Your task to perform on an android device: Open internet settings Image 0: 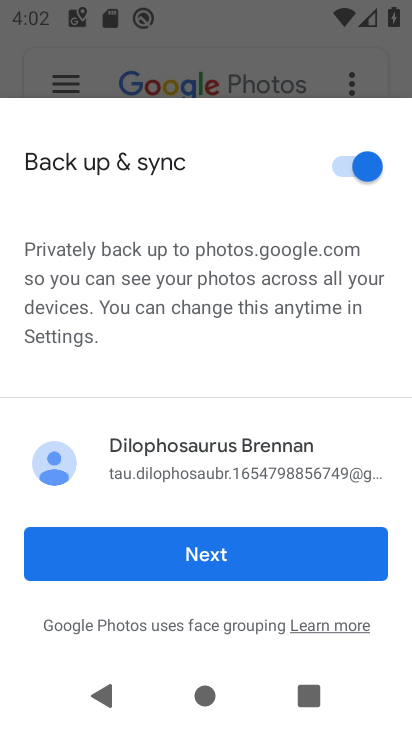
Step 0: press back button
Your task to perform on an android device: Open internet settings Image 1: 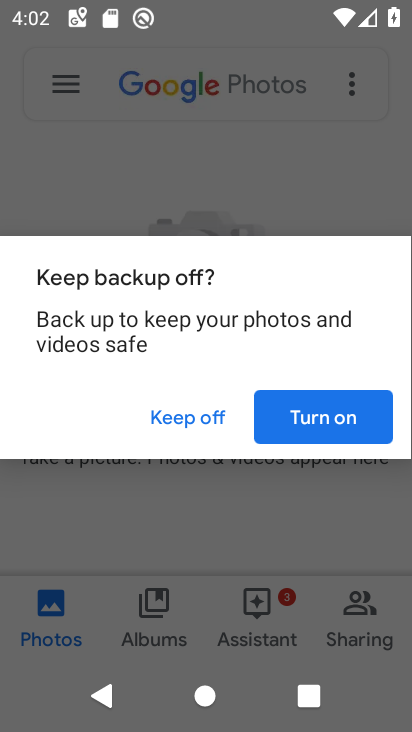
Step 1: click (184, 430)
Your task to perform on an android device: Open internet settings Image 2: 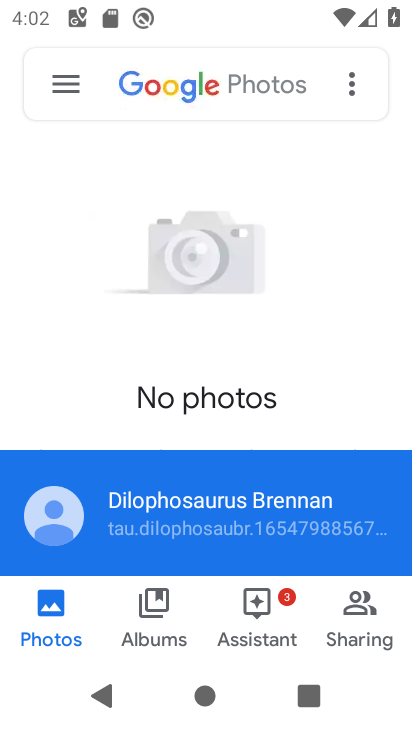
Step 2: press back button
Your task to perform on an android device: Open internet settings Image 3: 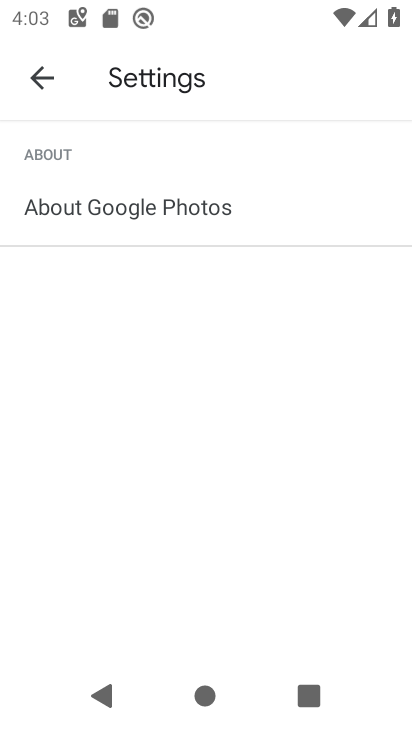
Step 3: press back button
Your task to perform on an android device: Open internet settings Image 4: 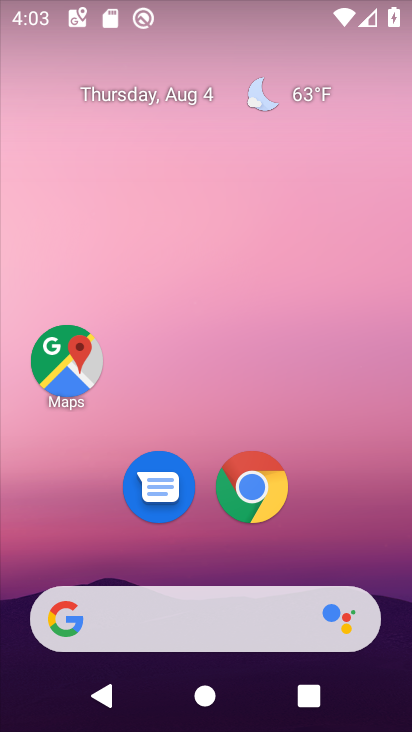
Step 4: drag from (94, 441) to (178, 60)
Your task to perform on an android device: Open internet settings Image 5: 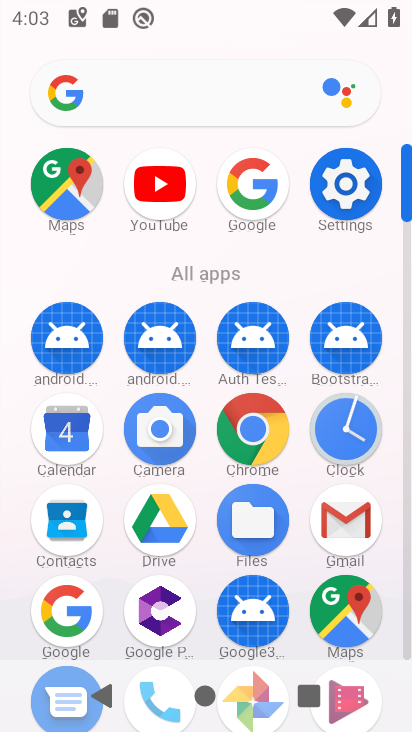
Step 5: click (356, 163)
Your task to perform on an android device: Open internet settings Image 6: 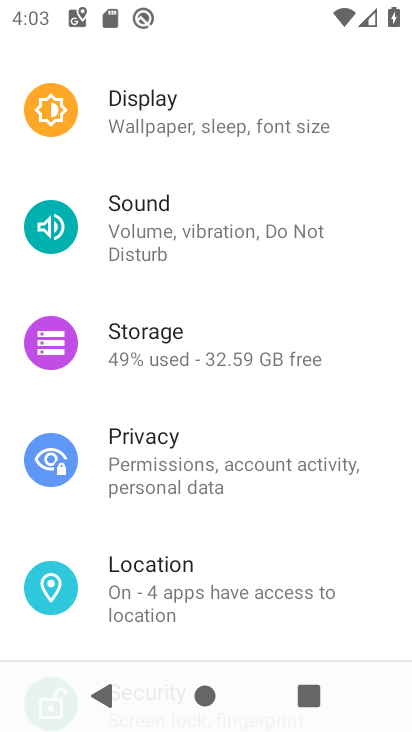
Step 6: drag from (253, 350) to (243, 713)
Your task to perform on an android device: Open internet settings Image 7: 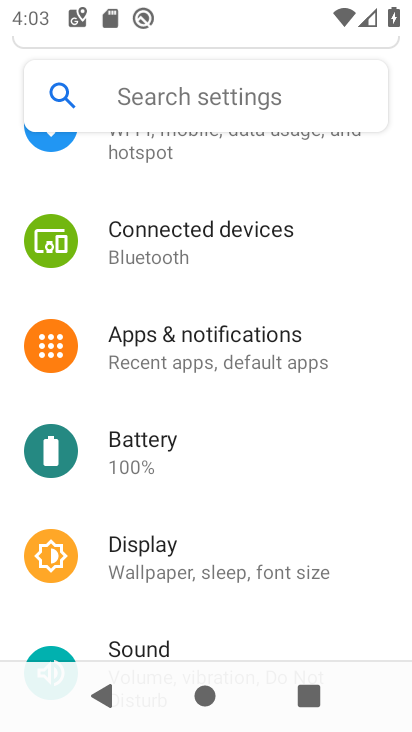
Step 7: drag from (219, 263) to (221, 707)
Your task to perform on an android device: Open internet settings Image 8: 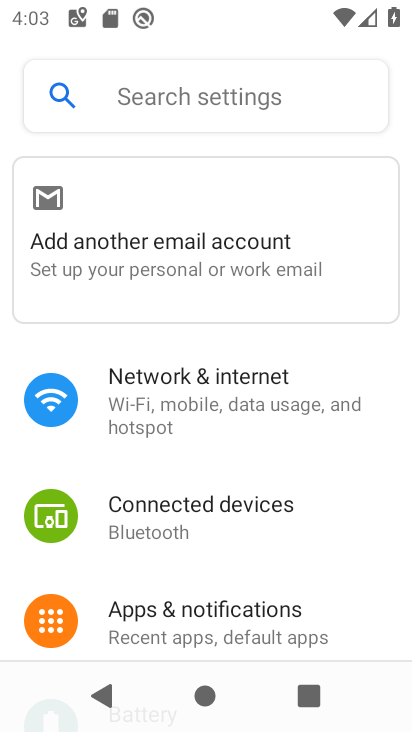
Step 8: click (168, 406)
Your task to perform on an android device: Open internet settings Image 9: 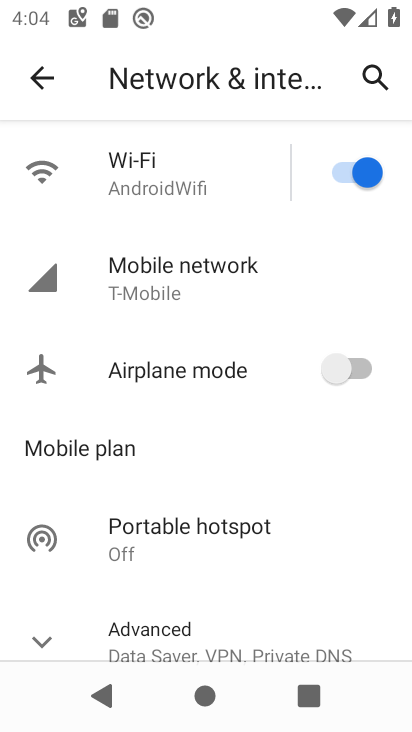
Step 9: task complete